Your task to perform on an android device: change timer sound Image 0: 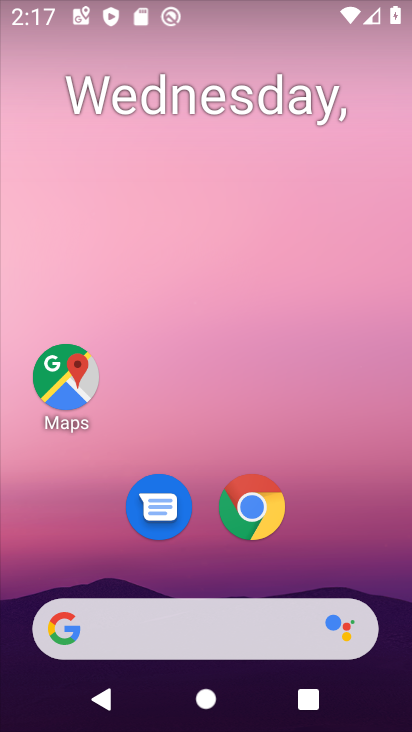
Step 0: drag from (337, 560) to (394, 121)
Your task to perform on an android device: change timer sound Image 1: 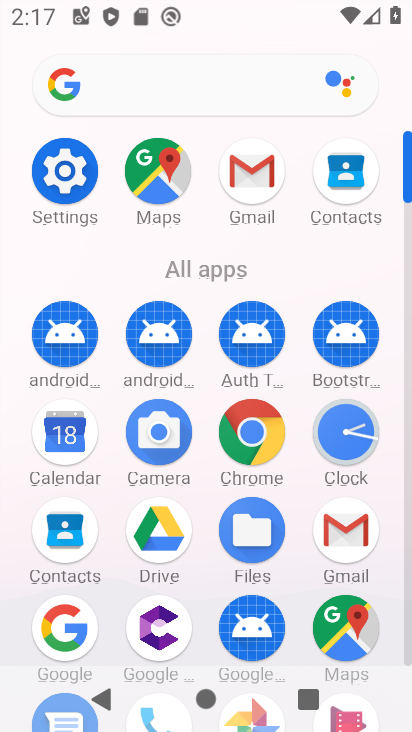
Step 1: click (358, 441)
Your task to perform on an android device: change timer sound Image 2: 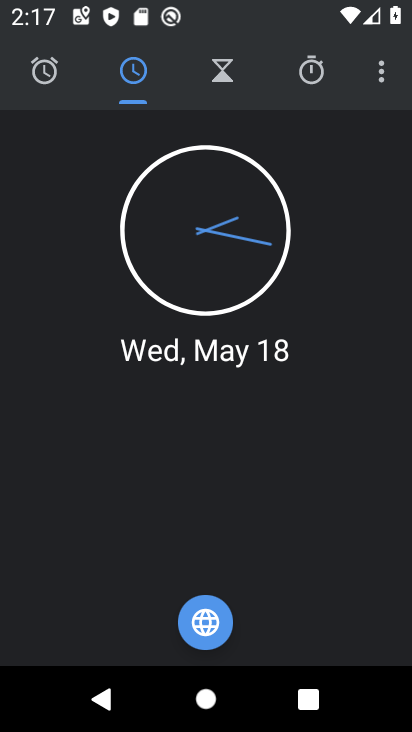
Step 2: click (230, 79)
Your task to perform on an android device: change timer sound Image 3: 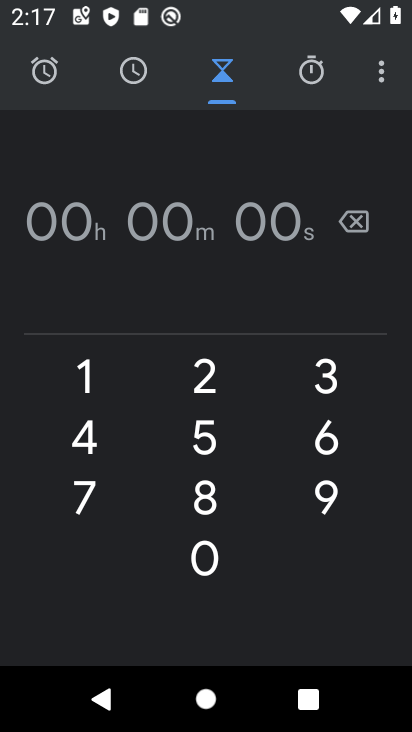
Step 3: click (379, 83)
Your task to perform on an android device: change timer sound Image 4: 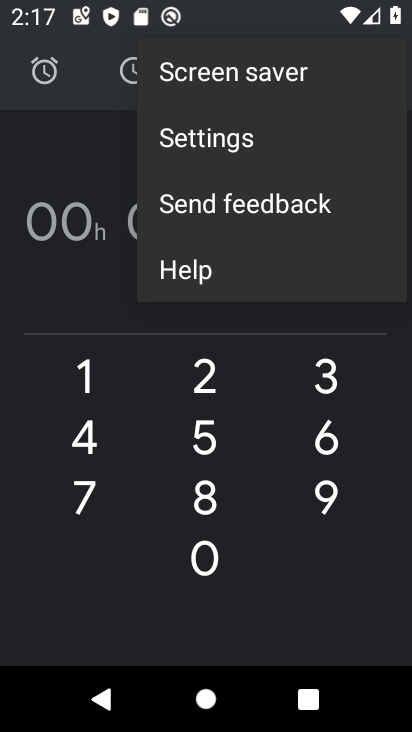
Step 4: click (228, 148)
Your task to perform on an android device: change timer sound Image 5: 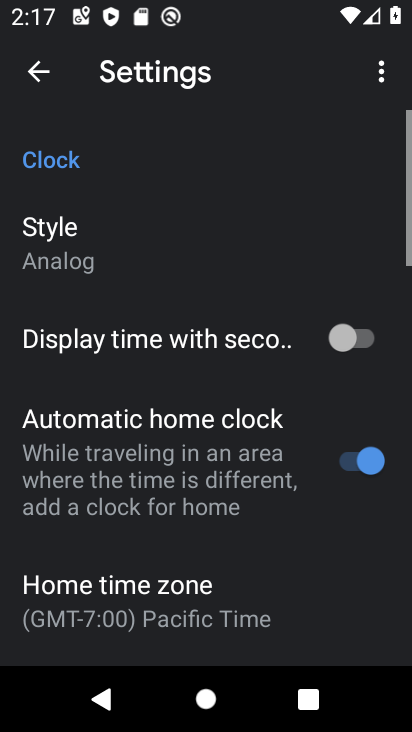
Step 5: drag from (143, 521) to (199, 199)
Your task to perform on an android device: change timer sound Image 6: 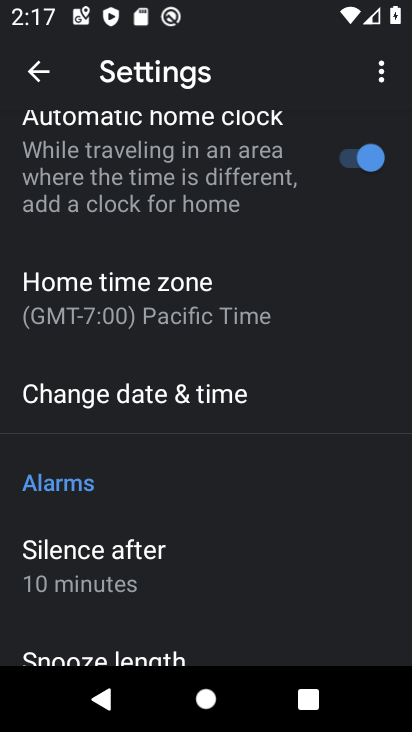
Step 6: drag from (181, 502) to (183, 163)
Your task to perform on an android device: change timer sound Image 7: 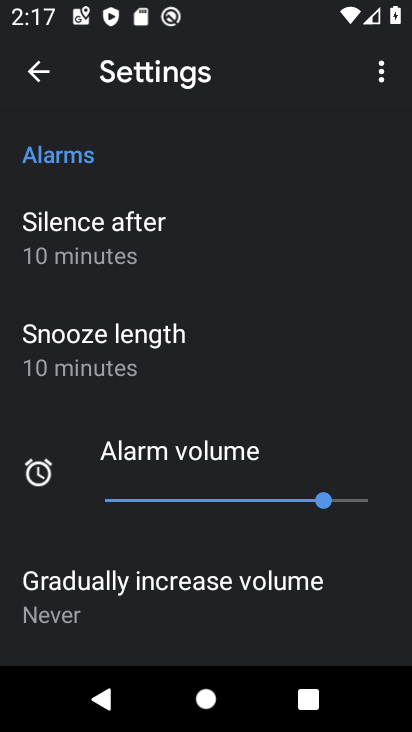
Step 7: drag from (176, 536) to (181, 211)
Your task to perform on an android device: change timer sound Image 8: 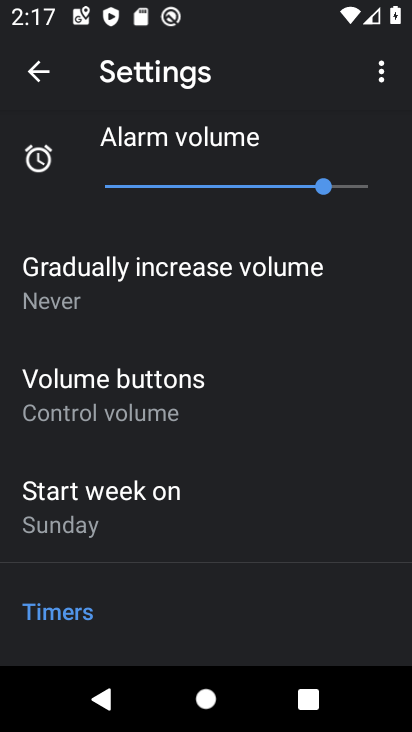
Step 8: drag from (164, 547) to (198, 120)
Your task to perform on an android device: change timer sound Image 9: 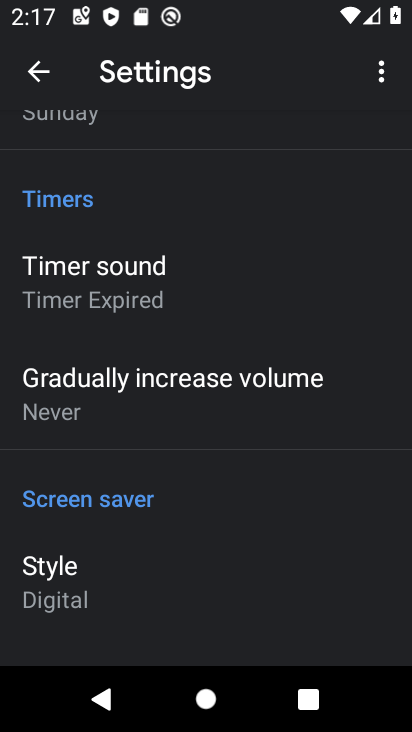
Step 9: click (124, 288)
Your task to perform on an android device: change timer sound Image 10: 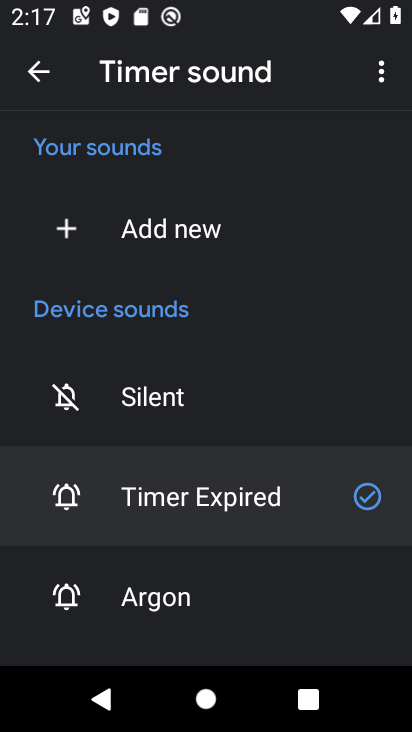
Step 10: click (227, 608)
Your task to perform on an android device: change timer sound Image 11: 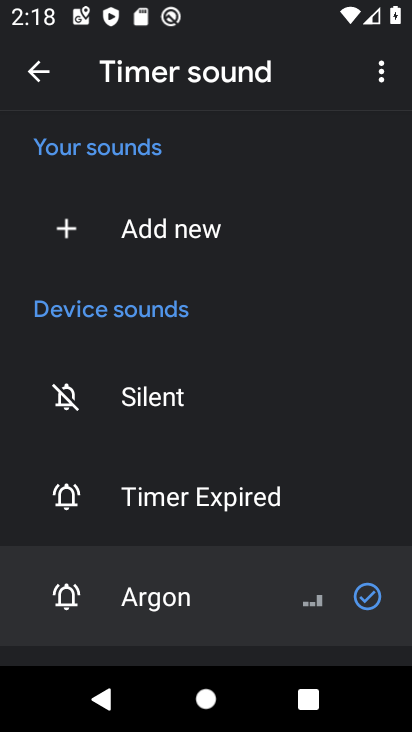
Step 11: press home button
Your task to perform on an android device: change timer sound Image 12: 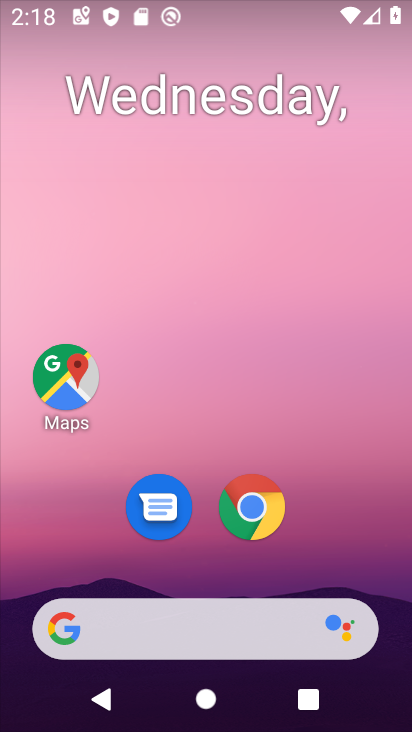
Step 12: drag from (315, 553) to (314, 155)
Your task to perform on an android device: change timer sound Image 13: 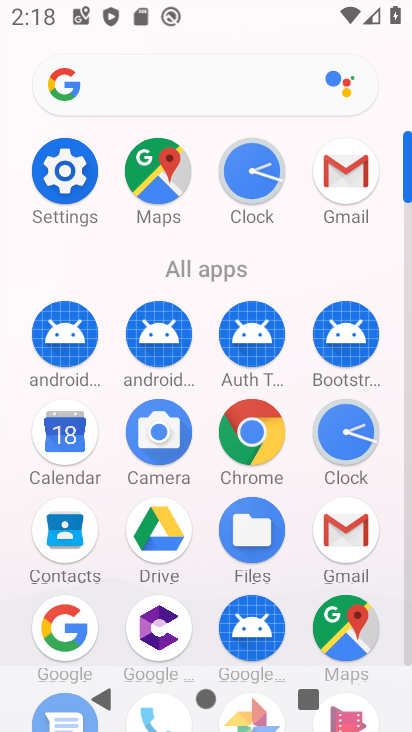
Step 13: click (368, 436)
Your task to perform on an android device: change timer sound Image 14: 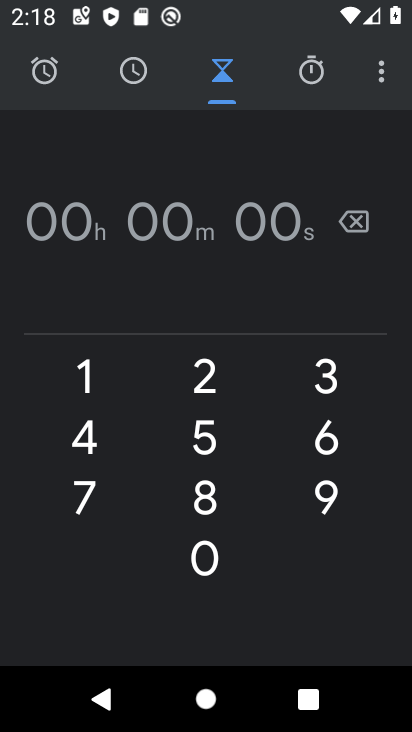
Step 14: click (379, 74)
Your task to perform on an android device: change timer sound Image 15: 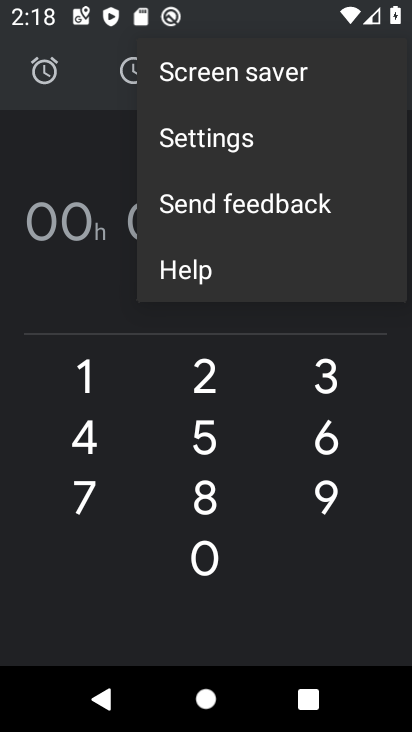
Step 15: click (246, 139)
Your task to perform on an android device: change timer sound Image 16: 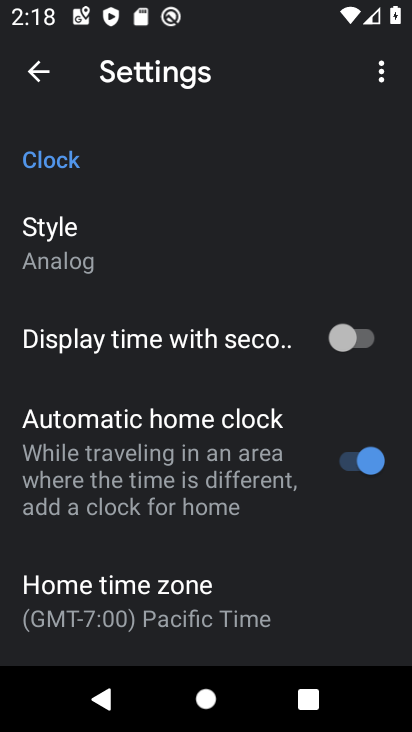
Step 16: drag from (269, 558) to (199, 91)
Your task to perform on an android device: change timer sound Image 17: 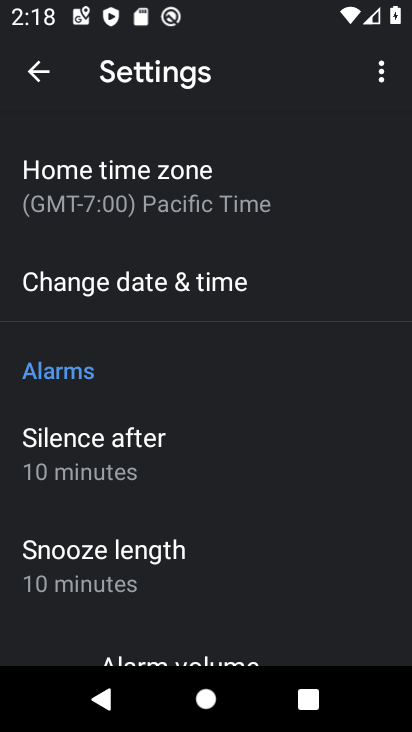
Step 17: drag from (209, 568) to (167, 209)
Your task to perform on an android device: change timer sound Image 18: 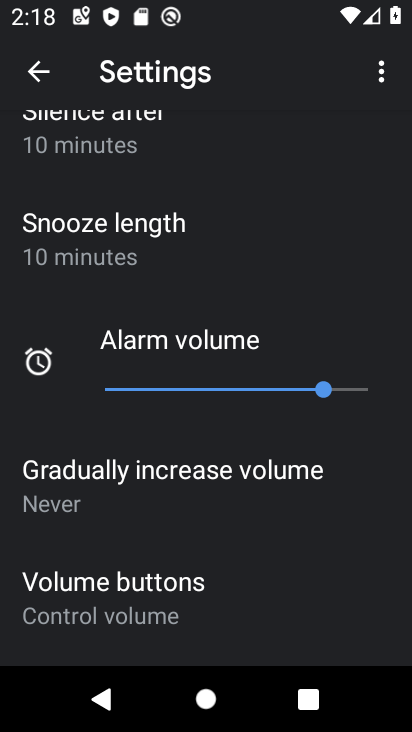
Step 18: drag from (214, 537) to (157, 109)
Your task to perform on an android device: change timer sound Image 19: 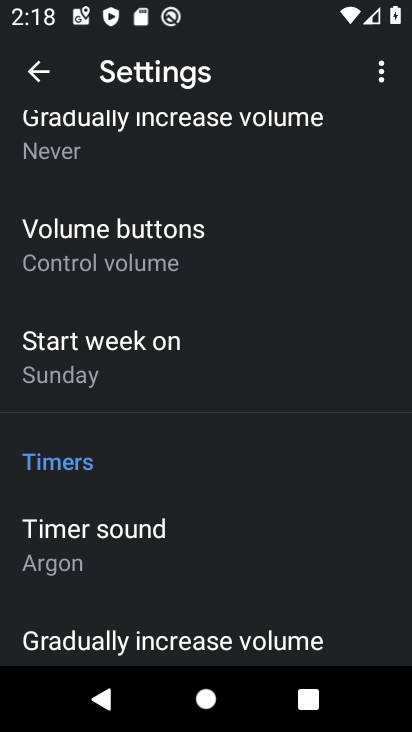
Step 19: drag from (170, 551) to (130, 205)
Your task to perform on an android device: change timer sound Image 20: 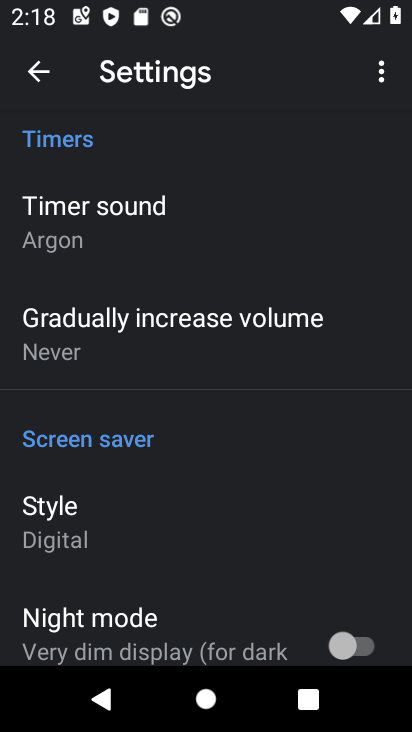
Step 20: click (123, 240)
Your task to perform on an android device: change timer sound Image 21: 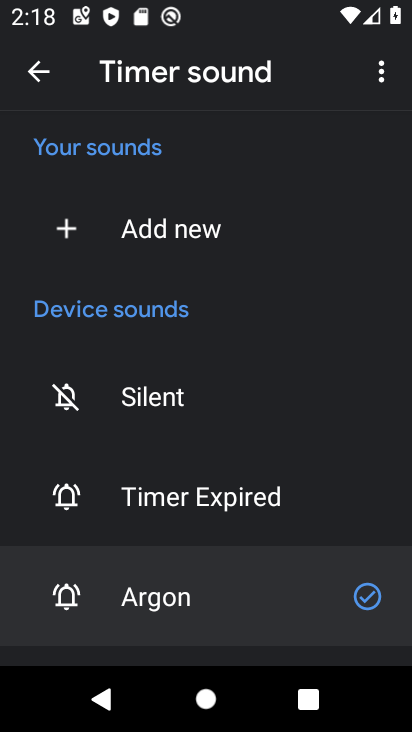
Step 21: click (205, 512)
Your task to perform on an android device: change timer sound Image 22: 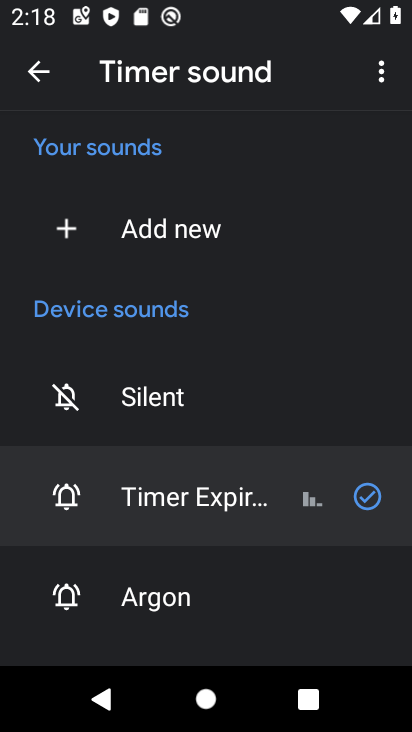
Step 22: task complete